Your task to perform on an android device: Search for pizza restaurants on Maps Image 0: 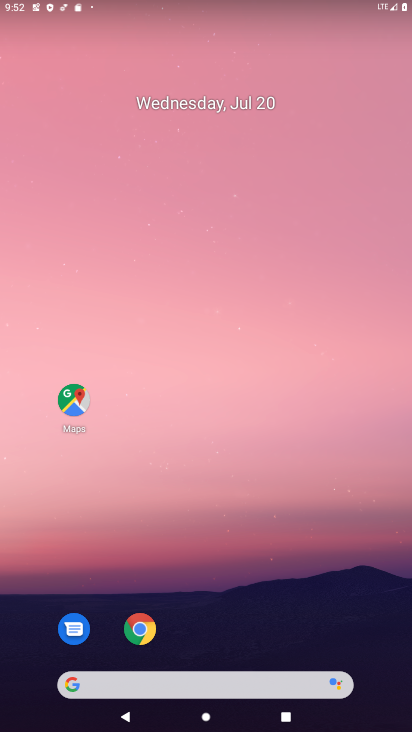
Step 0: press home button
Your task to perform on an android device: Search for pizza restaurants on Maps Image 1: 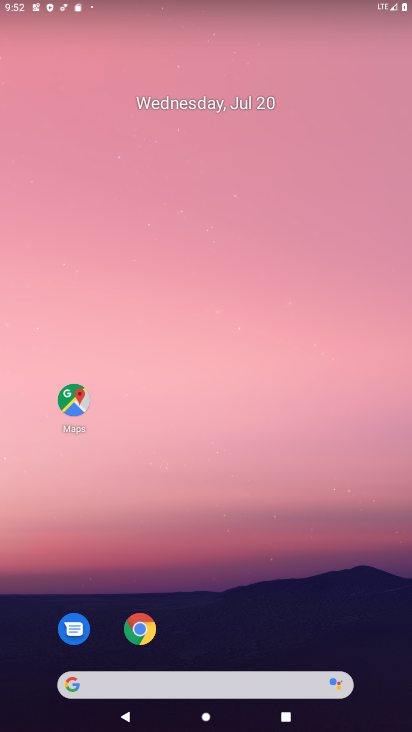
Step 1: click (69, 390)
Your task to perform on an android device: Search for pizza restaurants on Maps Image 2: 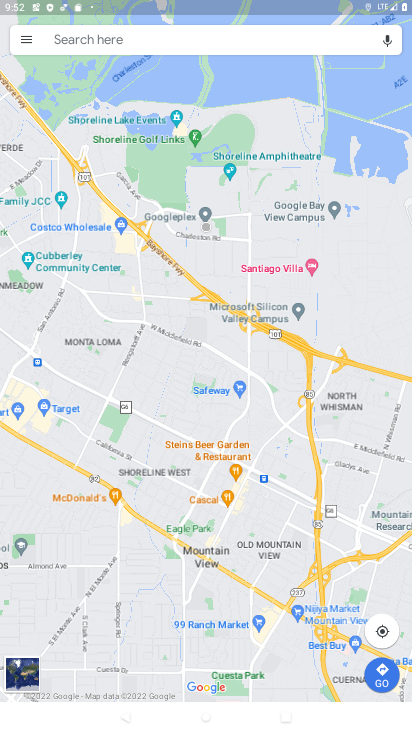
Step 2: click (154, 46)
Your task to perform on an android device: Search for pizza restaurants on Maps Image 3: 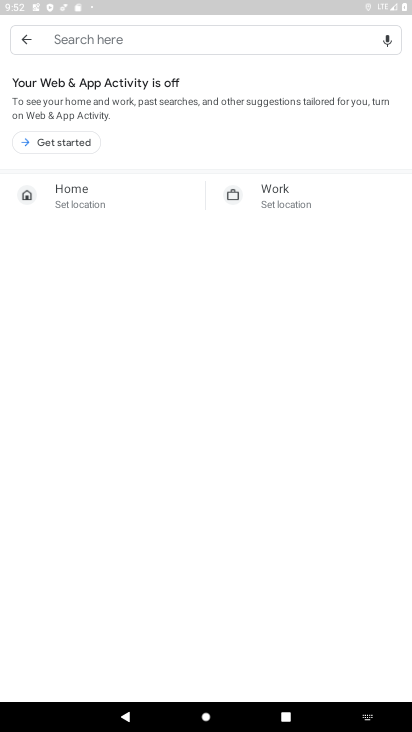
Step 3: type "pizza restaurants "
Your task to perform on an android device: Search for pizza restaurants on Maps Image 4: 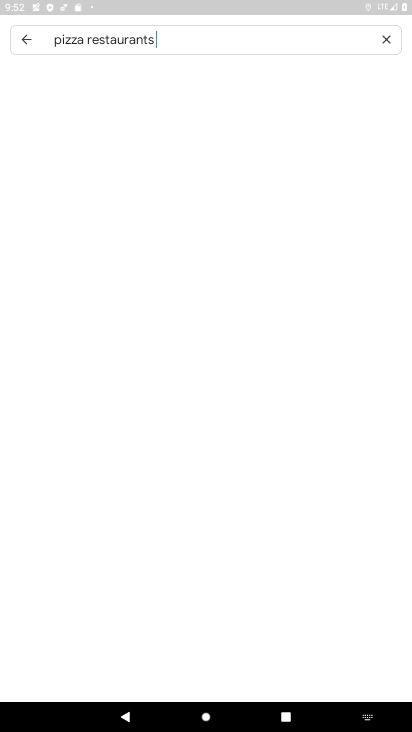
Step 4: type ""
Your task to perform on an android device: Search for pizza restaurants on Maps Image 5: 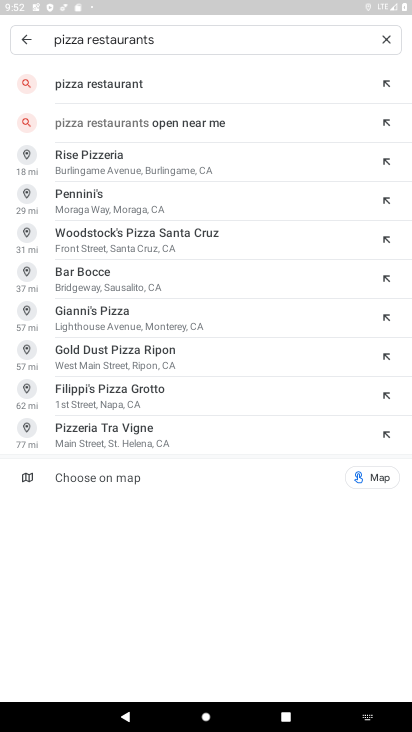
Step 5: click (158, 69)
Your task to perform on an android device: Search for pizza restaurants on Maps Image 6: 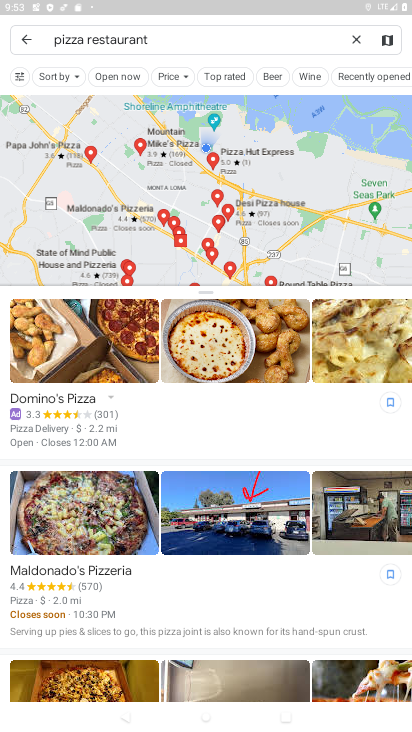
Step 6: task complete